Your task to perform on an android device: change alarm snooze length Image 0: 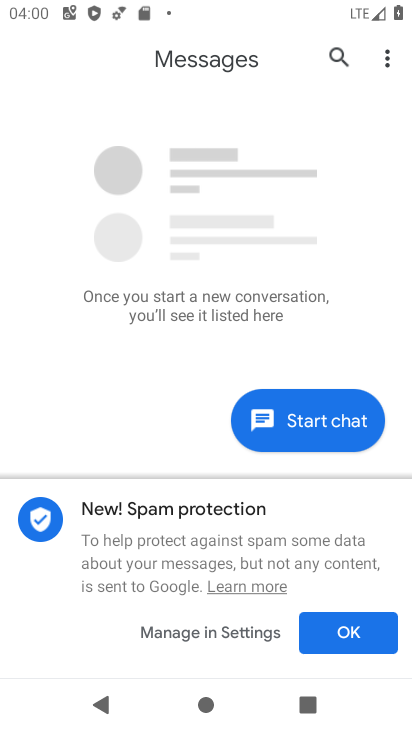
Step 0: press home button
Your task to perform on an android device: change alarm snooze length Image 1: 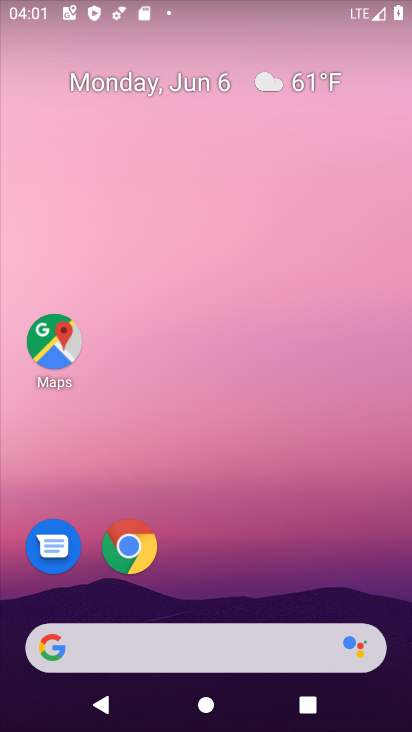
Step 1: drag from (217, 605) to (218, 90)
Your task to perform on an android device: change alarm snooze length Image 2: 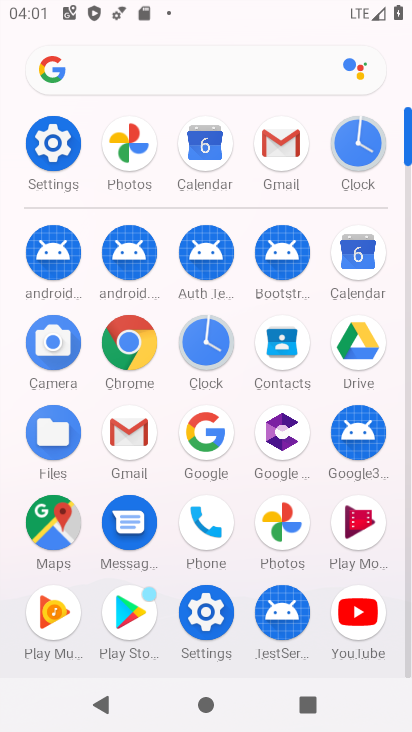
Step 2: click (366, 148)
Your task to perform on an android device: change alarm snooze length Image 3: 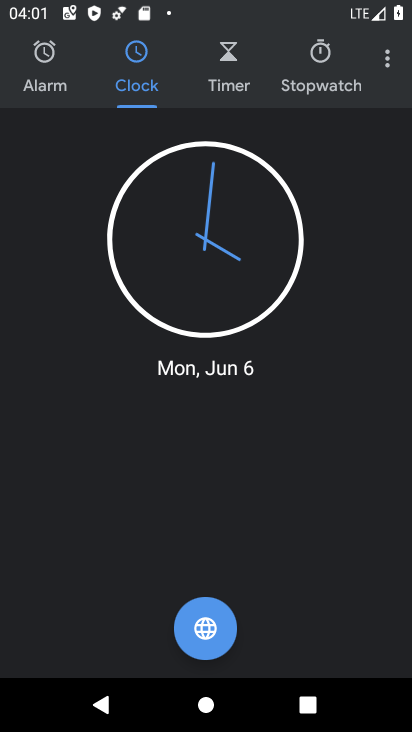
Step 3: click (388, 66)
Your task to perform on an android device: change alarm snooze length Image 4: 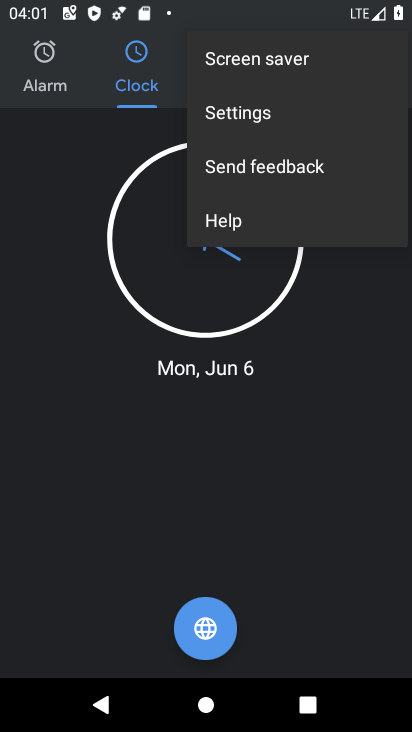
Step 4: click (242, 112)
Your task to perform on an android device: change alarm snooze length Image 5: 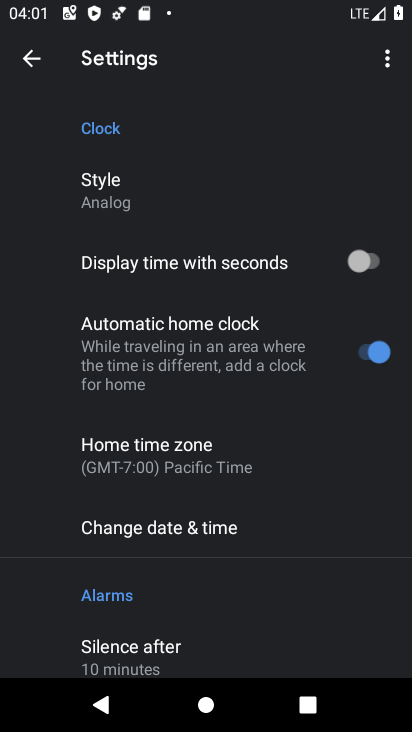
Step 5: drag from (292, 568) to (215, 180)
Your task to perform on an android device: change alarm snooze length Image 6: 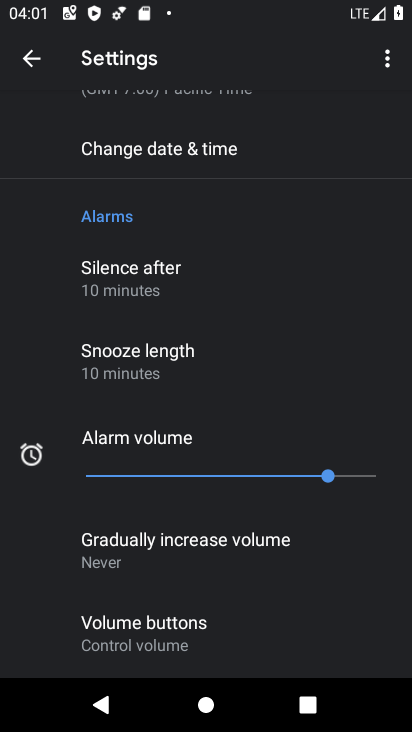
Step 6: click (115, 363)
Your task to perform on an android device: change alarm snooze length Image 7: 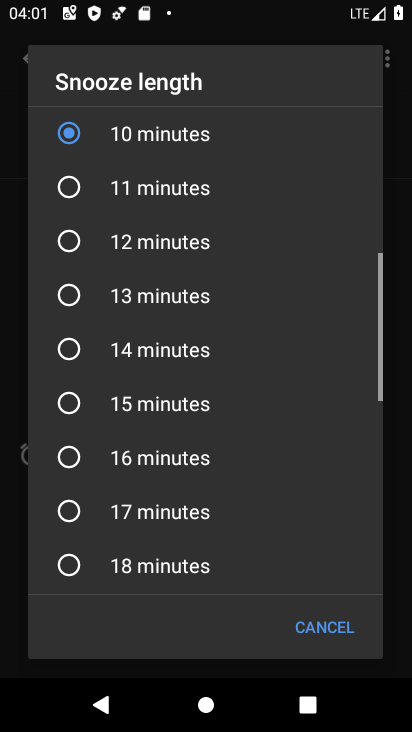
Step 7: click (68, 403)
Your task to perform on an android device: change alarm snooze length Image 8: 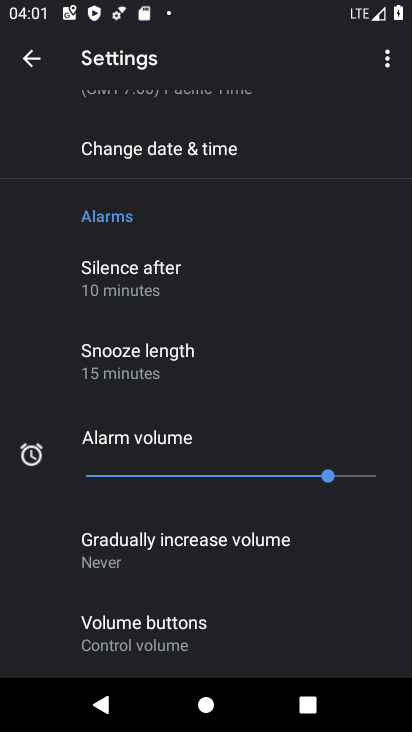
Step 8: task complete